Your task to perform on an android device: Open Wikipedia Image 0: 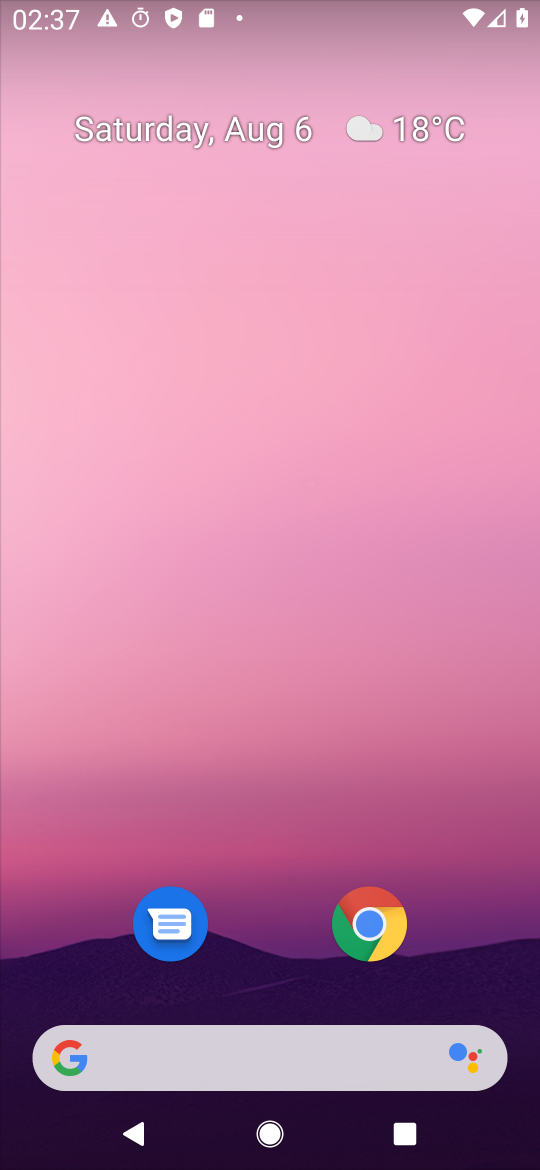
Step 0: drag from (378, 1033) to (273, 11)
Your task to perform on an android device: Open Wikipedia Image 1: 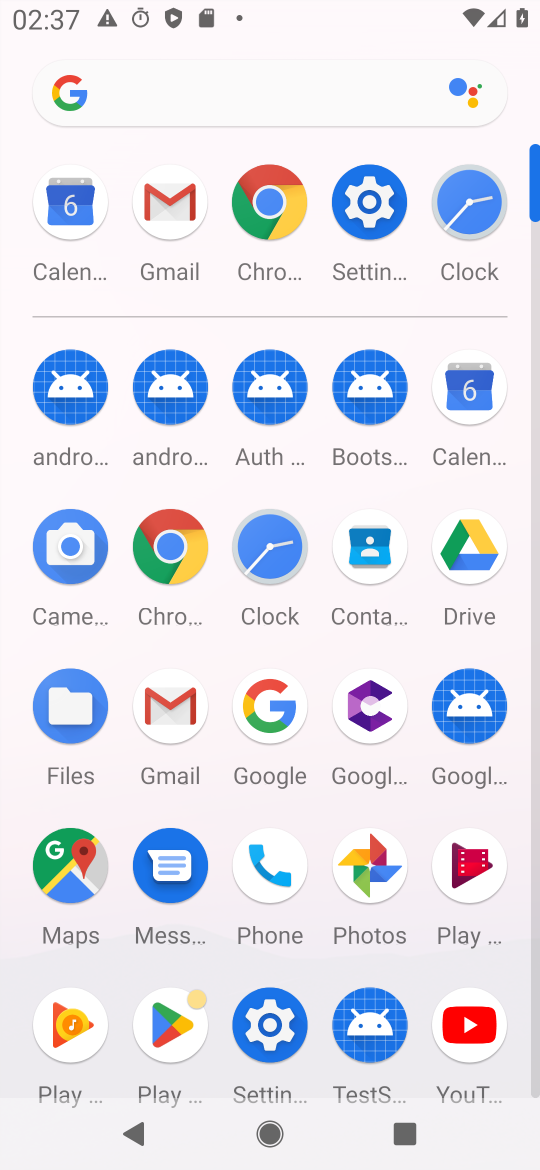
Step 1: click (187, 545)
Your task to perform on an android device: Open Wikipedia Image 2: 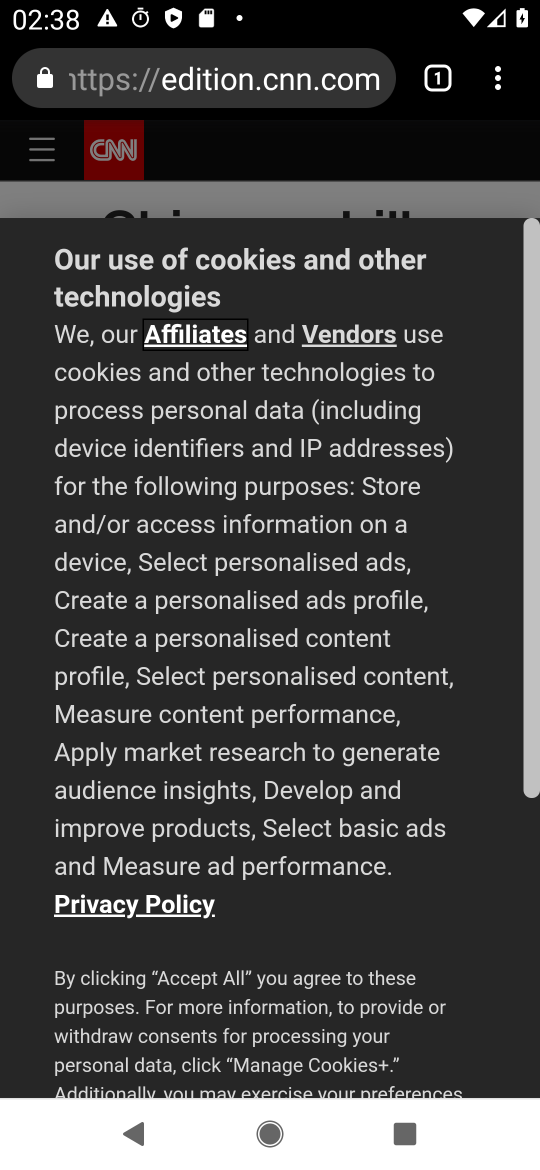
Step 2: click (506, 79)
Your task to perform on an android device: Open Wikipedia Image 3: 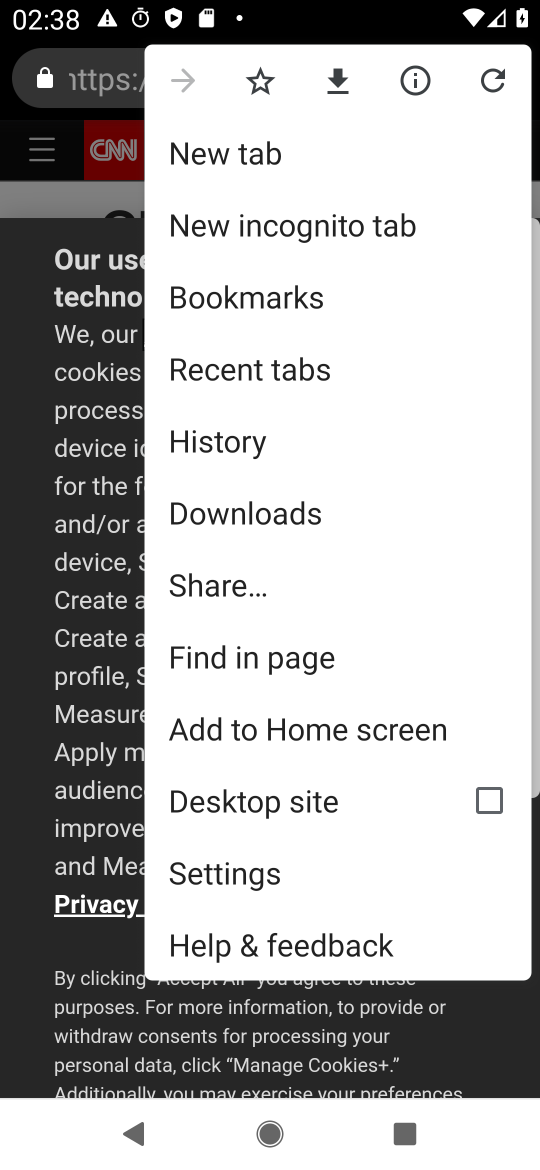
Step 3: click (304, 152)
Your task to perform on an android device: Open Wikipedia Image 4: 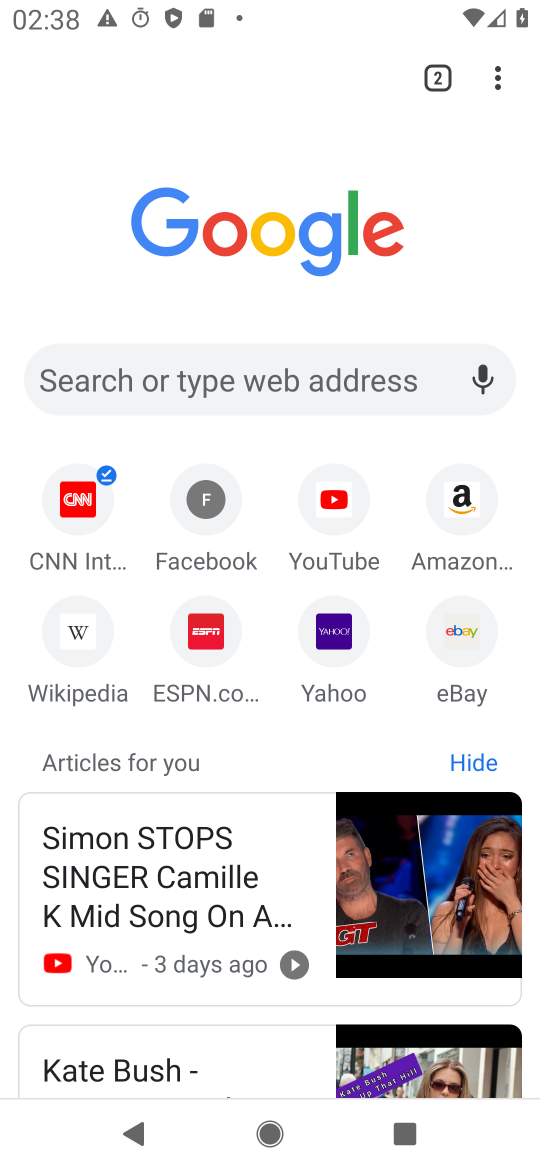
Step 4: click (83, 645)
Your task to perform on an android device: Open Wikipedia Image 5: 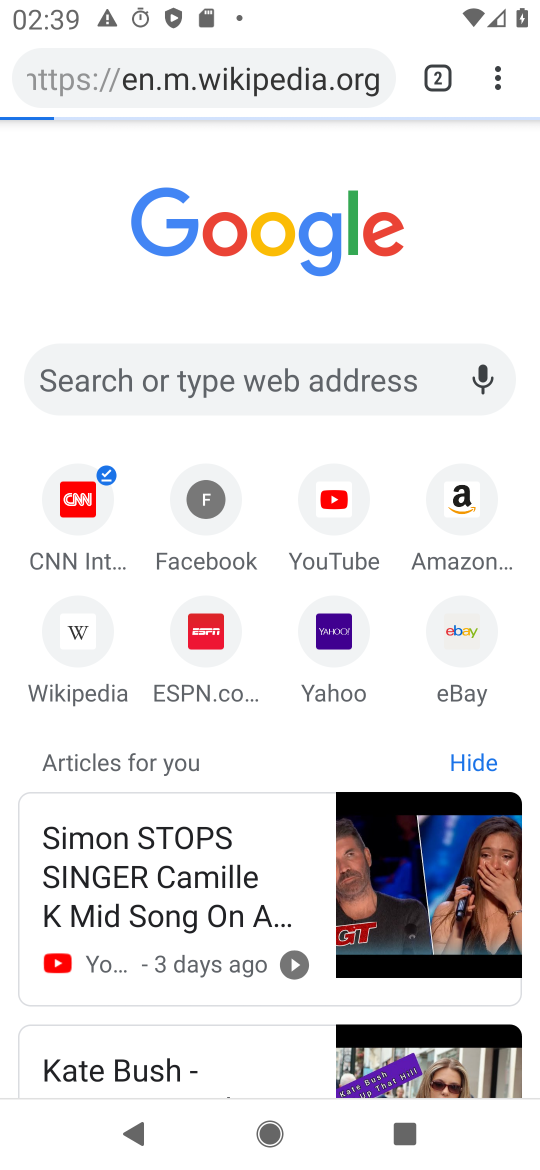
Step 5: task complete